Your task to perform on an android device: delete browsing data in the chrome app Image 0: 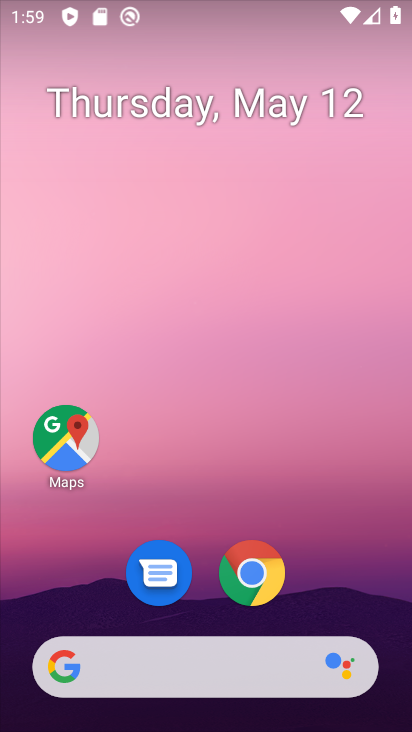
Step 0: drag from (208, 607) to (226, 288)
Your task to perform on an android device: delete browsing data in the chrome app Image 1: 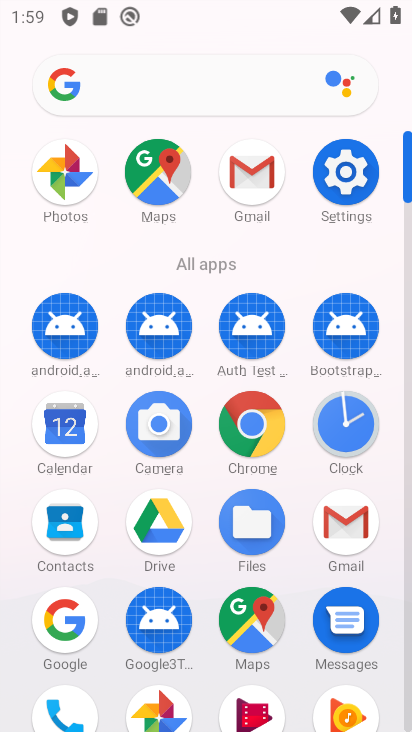
Step 1: click (246, 436)
Your task to perform on an android device: delete browsing data in the chrome app Image 2: 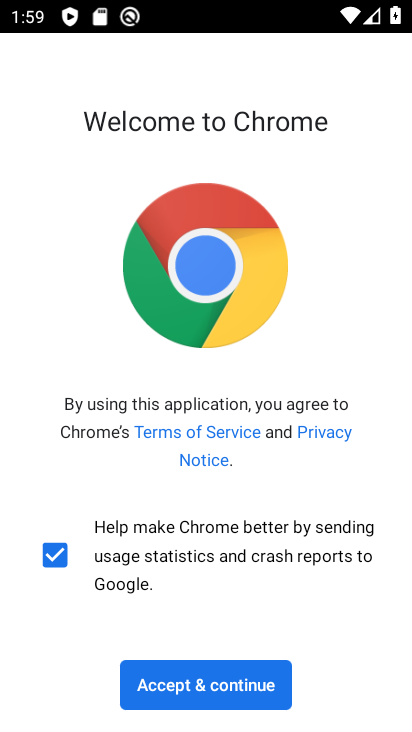
Step 2: click (206, 685)
Your task to perform on an android device: delete browsing data in the chrome app Image 3: 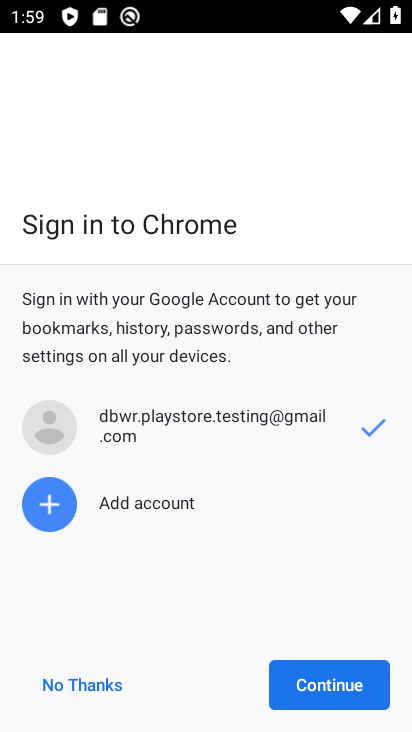
Step 3: click (71, 714)
Your task to perform on an android device: delete browsing data in the chrome app Image 4: 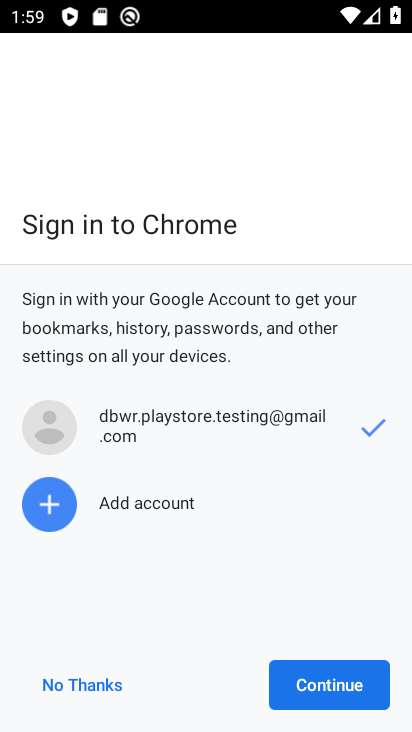
Step 4: click (95, 683)
Your task to perform on an android device: delete browsing data in the chrome app Image 5: 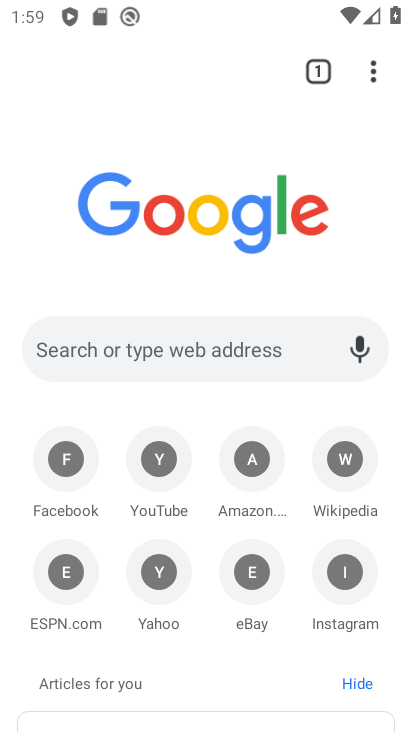
Step 5: click (372, 72)
Your task to perform on an android device: delete browsing data in the chrome app Image 6: 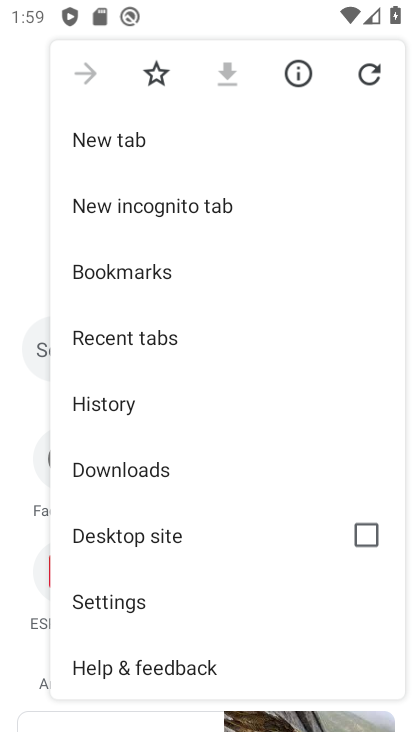
Step 6: drag from (244, 539) to (340, 168)
Your task to perform on an android device: delete browsing data in the chrome app Image 7: 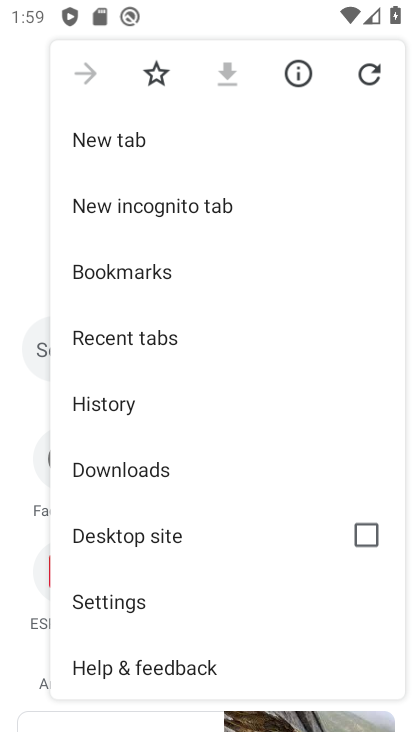
Step 7: click (142, 593)
Your task to perform on an android device: delete browsing data in the chrome app Image 8: 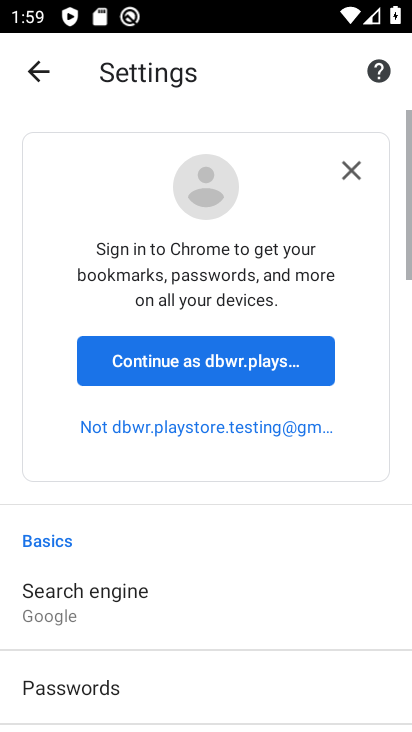
Step 8: click (35, 81)
Your task to perform on an android device: delete browsing data in the chrome app Image 9: 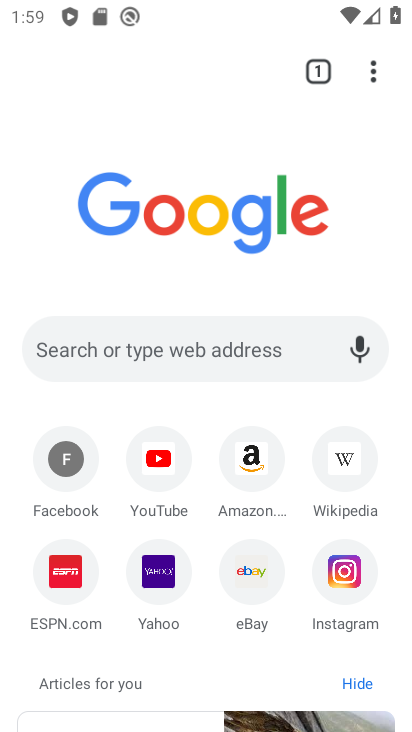
Step 9: click (371, 65)
Your task to perform on an android device: delete browsing data in the chrome app Image 10: 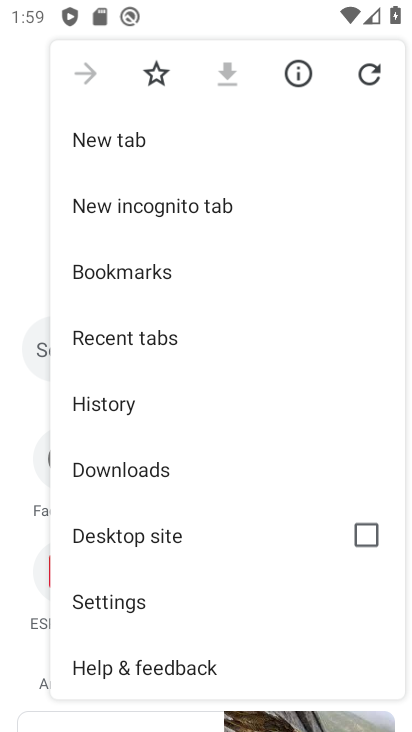
Step 10: click (143, 397)
Your task to perform on an android device: delete browsing data in the chrome app Image 11: 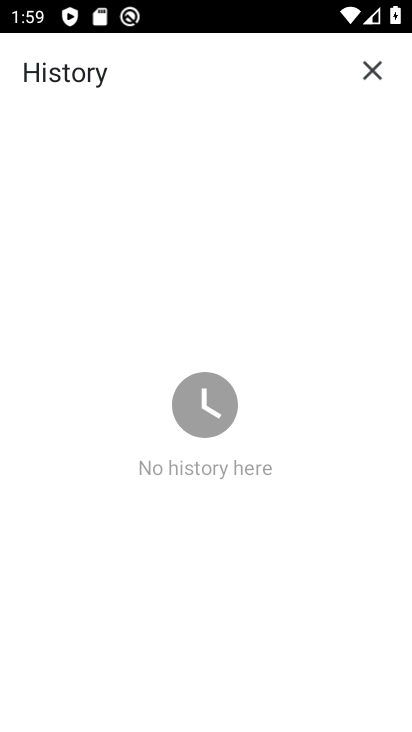
Step 11: task complete